Your task to perform on an android device: Show me popular games on the Play Store Image 0: 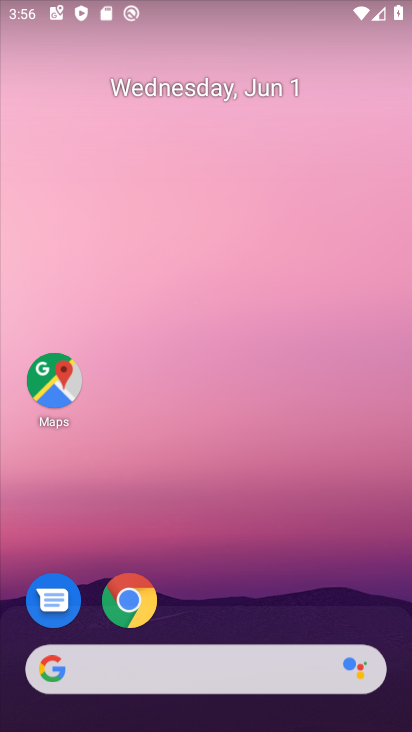
Step 0: drag from (390, 617) to (343, 248)
Your task to perform on an android device: Show me popular games on the Play Store Image 1: 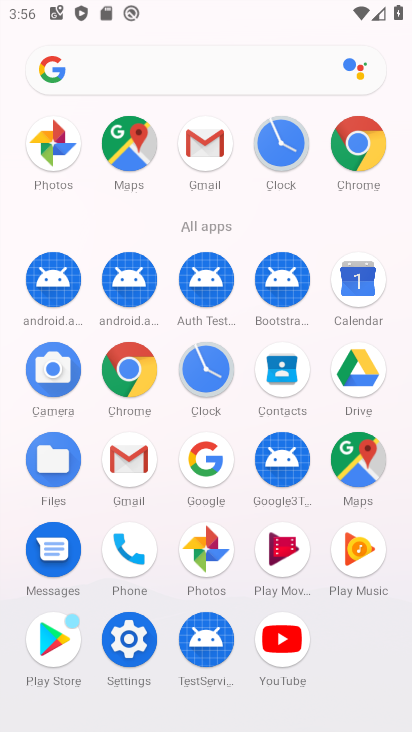
Step 1: click (61, 638)
Your task to perform on an android device: Show me popular games on the Play Store Image 2: 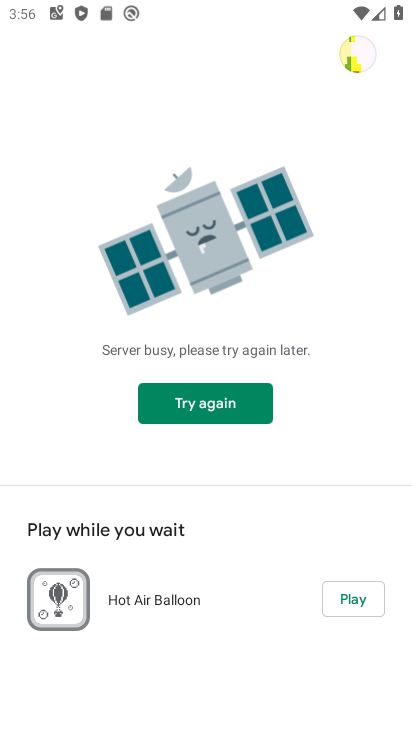
Step 2: click (220, 400)
Your task to perform on an android device: Show me popular games on the Play Store Image 3: 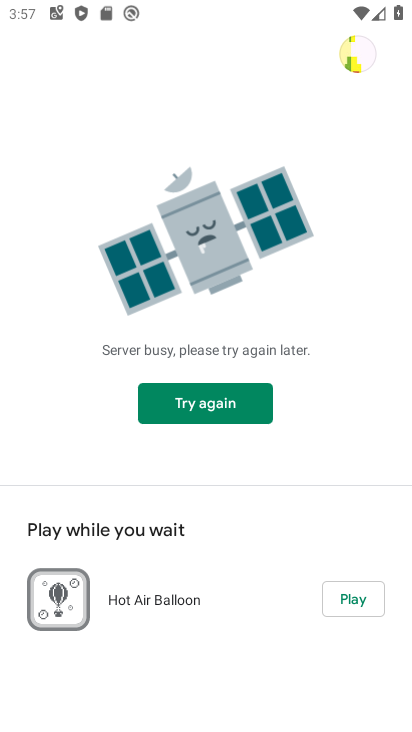
Step 3: task complete